Your task to perform on an android device: check the backup settings in the google photos Image 0: 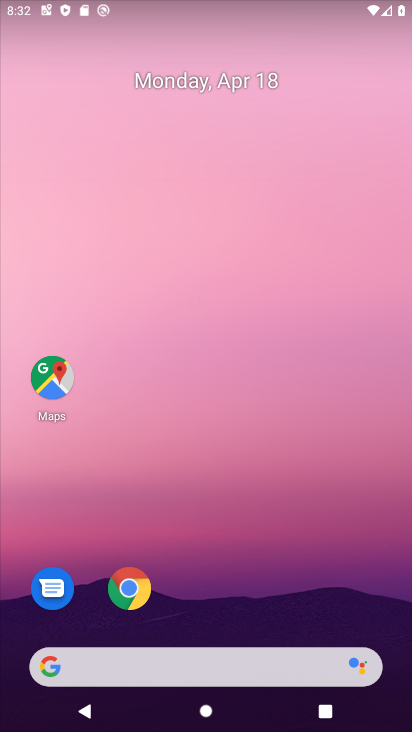
Step 0: drag from (267, 572) to (291, 87)
Your task to perform on an android device: check the backup settings in the google photos Image 1: 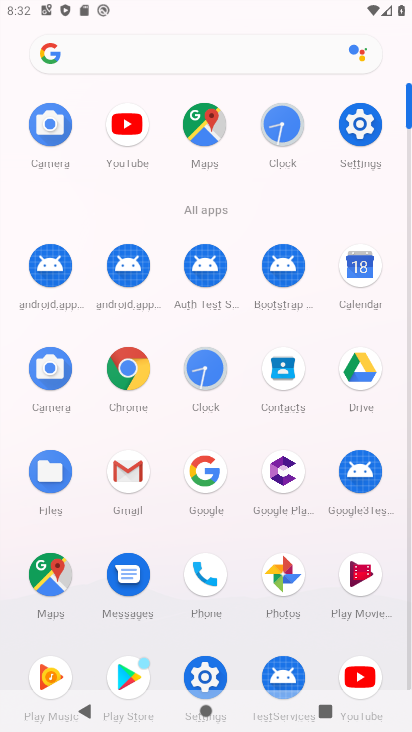
Step 1: click (284, 569)
Your task to perform on an android device: check the backup settings in the google photos Image 2: 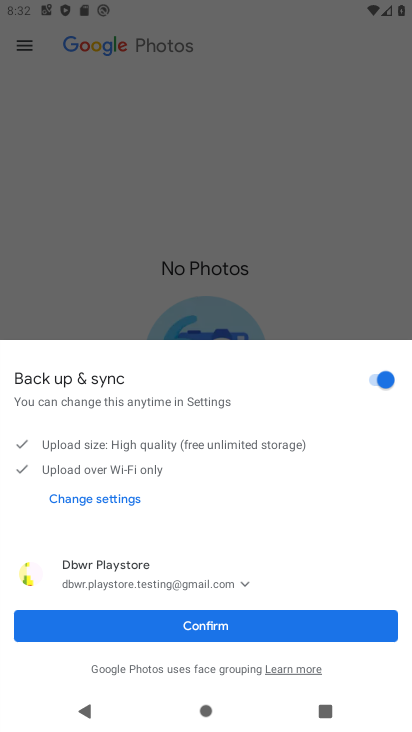
Step 2: click (230, 626)
Your task to perform on an android device: check the backup settings in the google photos Image 3: 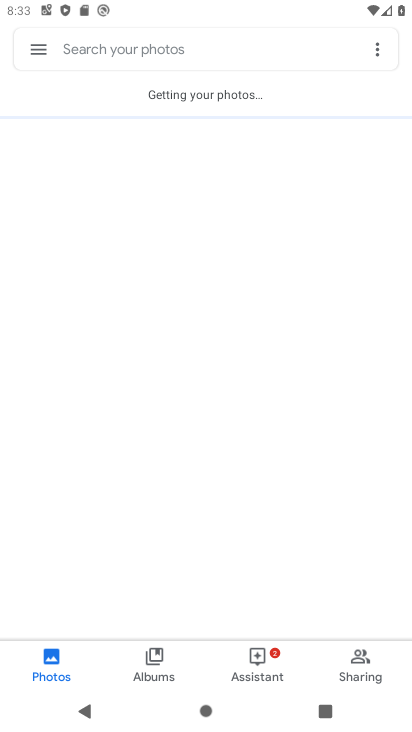
Step 3: click (31, 51)
Your task to perform on an android device: check the backup settings in the google photos Image 4: 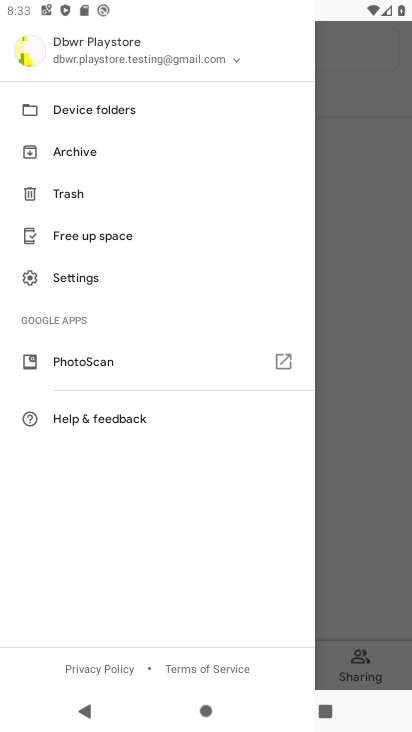
Step 4: click (151, 278)
Your task to perform on an android device: check the backup settings in the google photos Image 5: 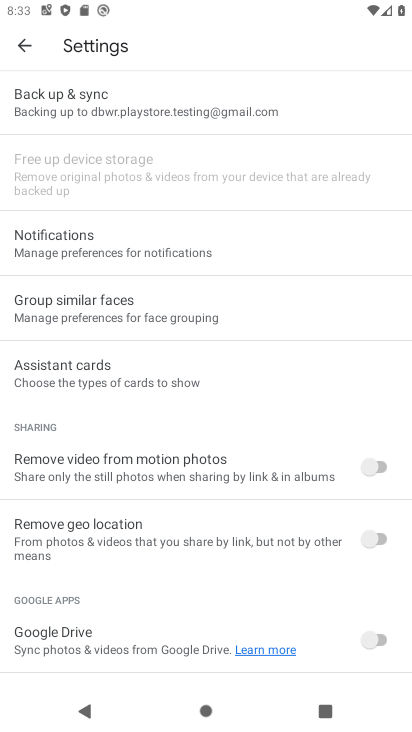
Step 5: click (200, 113)
Your task to perform on an android device: check the backup settings in the google photos Image 6: 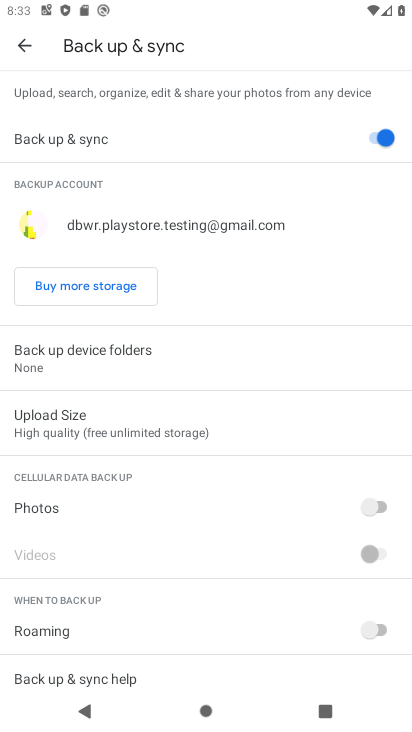
Step 6: click (209, 225)
Your task to perform on an android device: check the backup settings in the google photos Image 7: 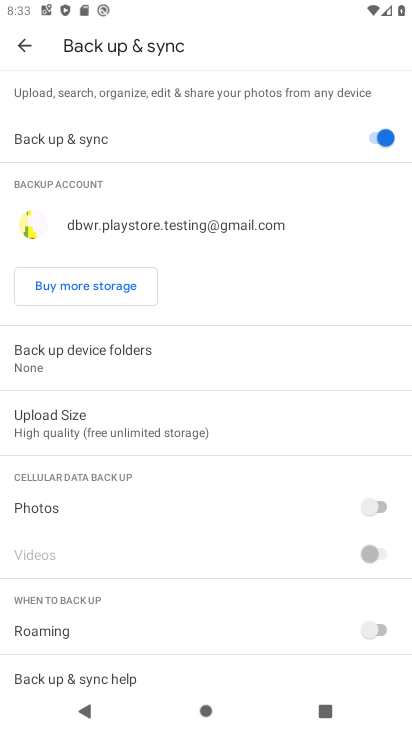
Step 7: click (45, 135)
Your task to perform on an android device: check the backup settings in the google photos Image 8: 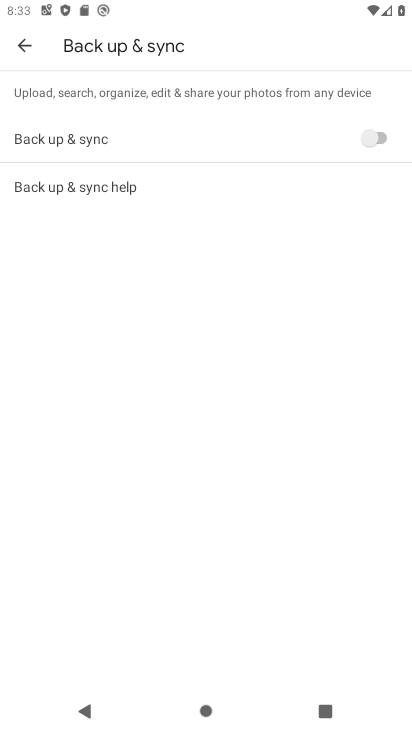
Step 8: click (45, 135)
Your task to perform on an android device: check the backup settings in the google photos Image 9: 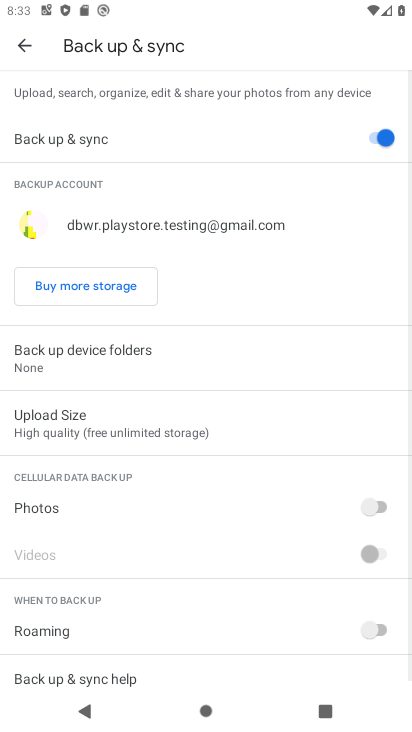
Step 9: task complete